Your task to perform on an android device: Open Android settings Image 0: 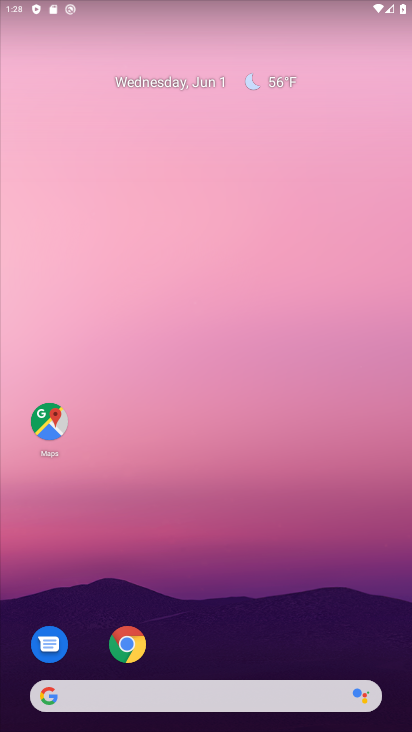
Step 0: click (130, 647)
Your task to perform on an android device: Open Android settings Image 1: 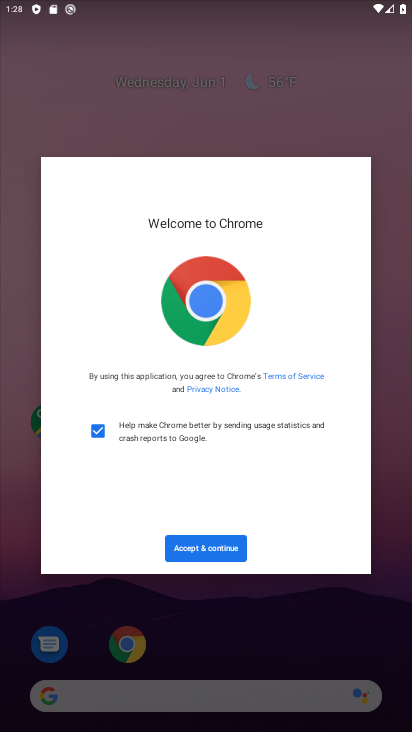
Step 1: press home button
Your task to perform on an android device: Open Android settings Image 2: 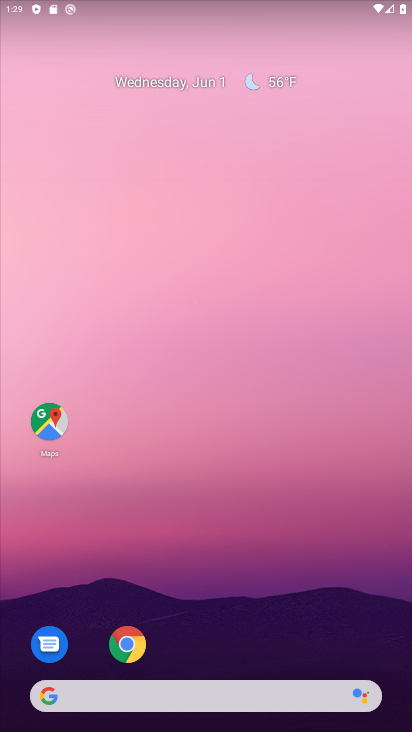
Step 2: drag from (209, 366) to (215, 313)
Your task to perform on an android device: Open Android settings Image 3: 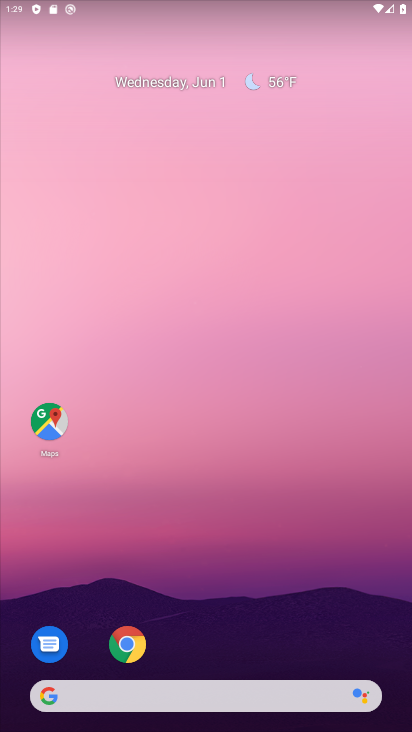
Step 3: drag from (294, 680) to (266, 240)
Your task to perform on an android device: Open Android settings Image 4: 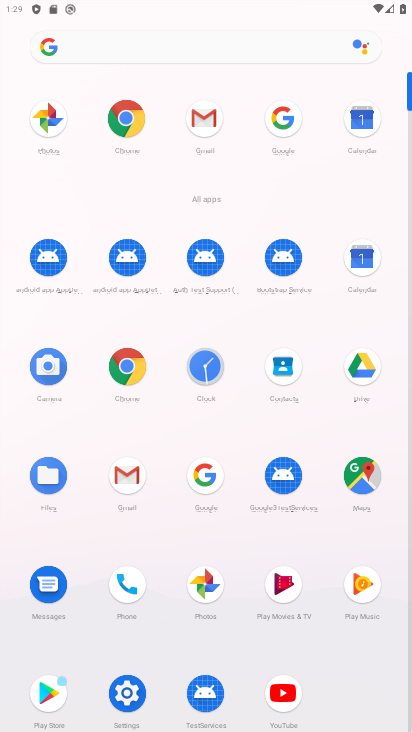
Step 4: click (126, 696)
Your task to perform on an android device: Open Android settings Image 5: 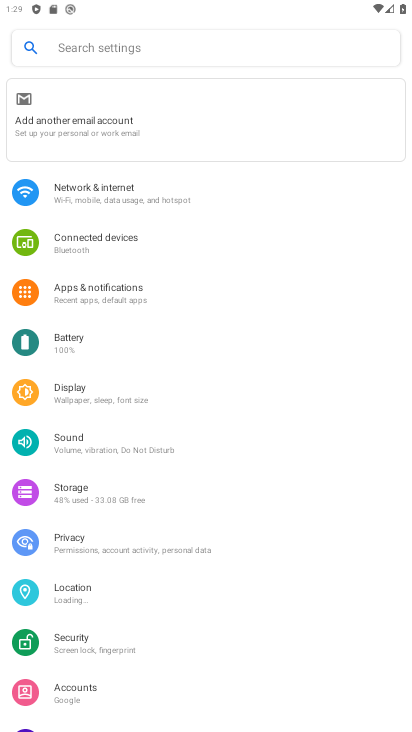
Step 5: task complete